Your task to perform on an android device: open sync settings in chrome Image 0: 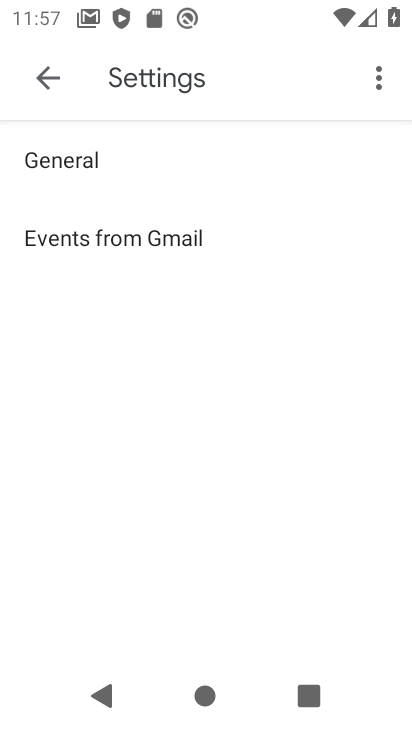
Step 0: press back button
Your task to perform on an android device: open sync settings in chrome Image 1: 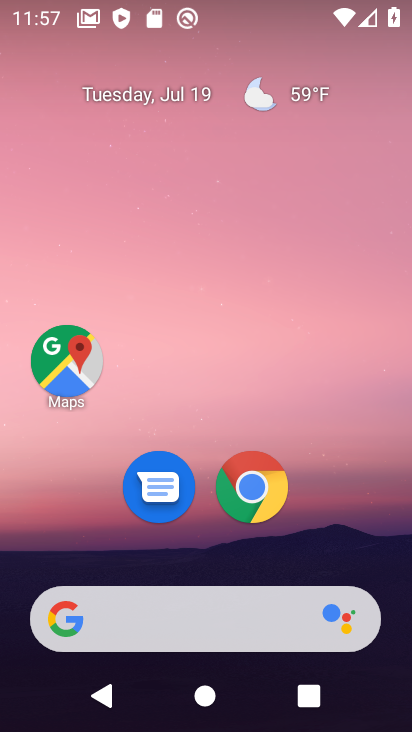
Step 1: click (243, 482)
Your task to perform on an android device: open sync settings in chrome Image 2: 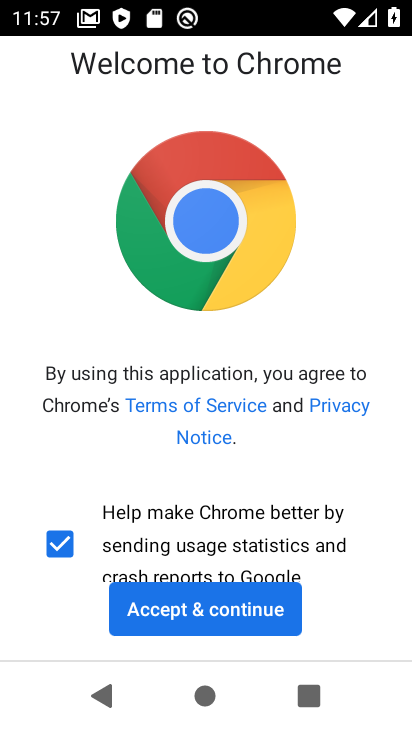
Step 2: click (168, 625)
Your task to perform on an android device: open sync settings in chrome Image 3: 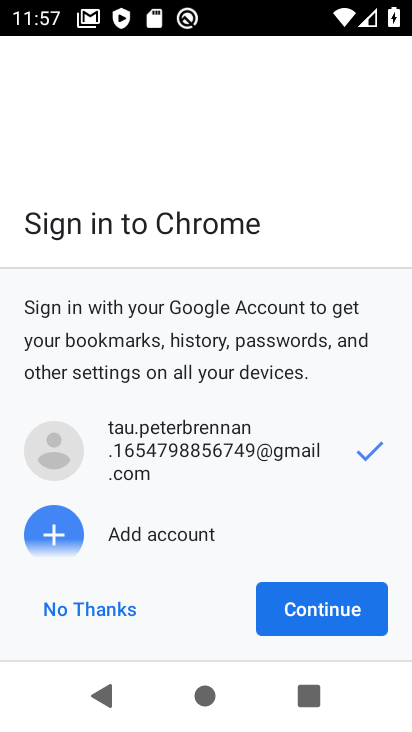
Step 3: click (278, 583)
Your task to perform on an android device: open sync settings in chrome Image 4: 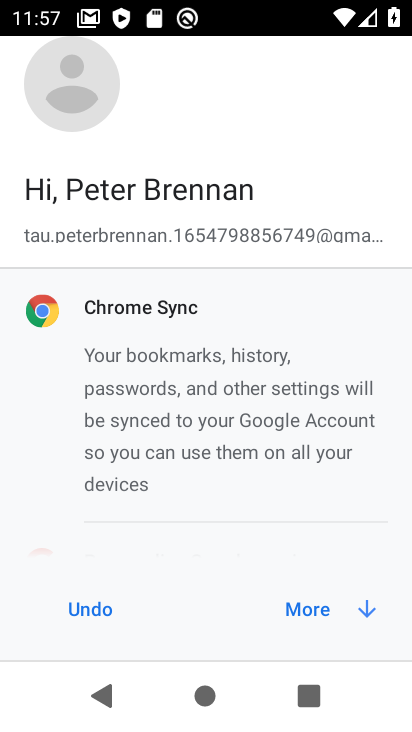
Step 4: click (325, 621)
Your task to perform on an android device: open sync settings in chrome Image 5: 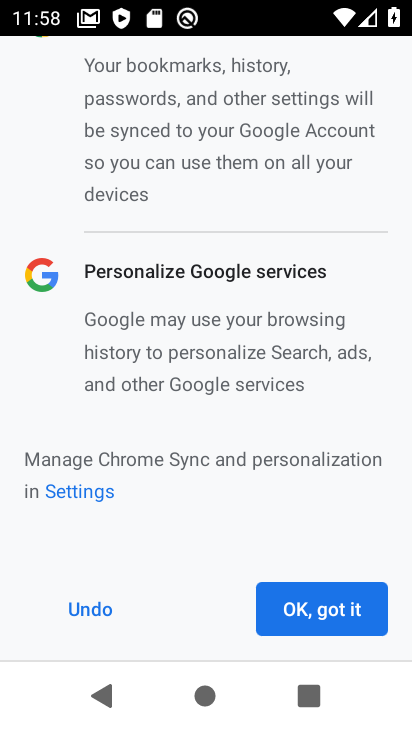
Step 5: click (324, 616)
Your task to perform on an android device: open sync settings in chrome Image 6: 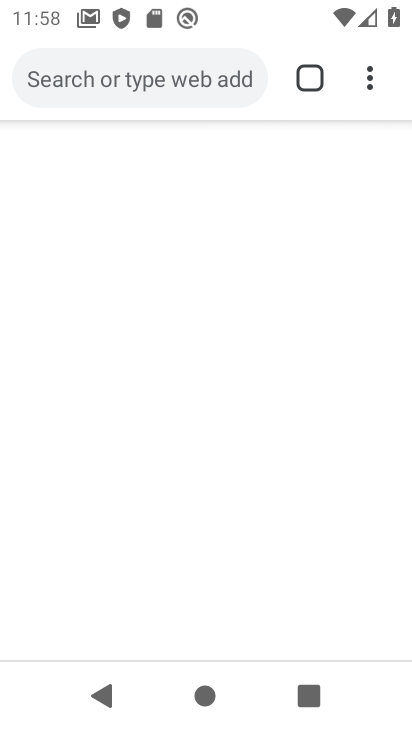
Step 6: drag from (380, 73) to (197, 535)
Your task to perform on an android device: open sync settings in chrome Image 7: 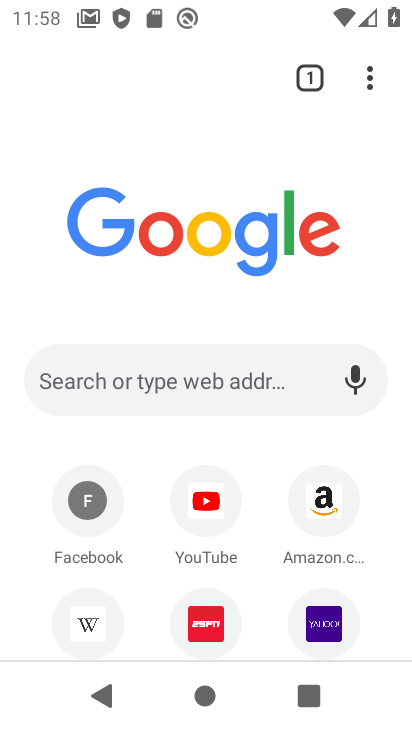
Step 7: drag from (368, 76) to (85, 549)
Your task to perform on an android device: open sync settings in chrome Image 8: 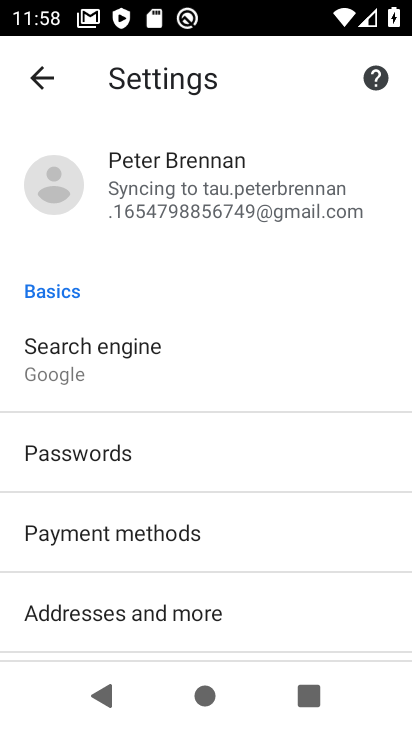
Step 8: click (228, 186)
Your task to perform on an android device: open sync settings in chrome Image 9: 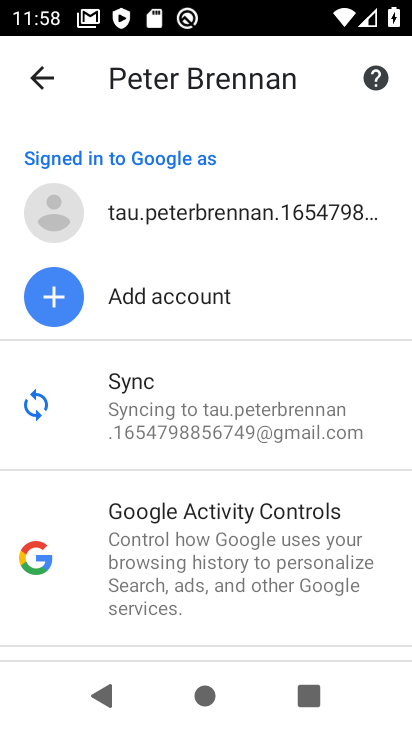
Step 9: task complete